Your task to perform on an android device: choose inbox layout in the gmail app Image 0: 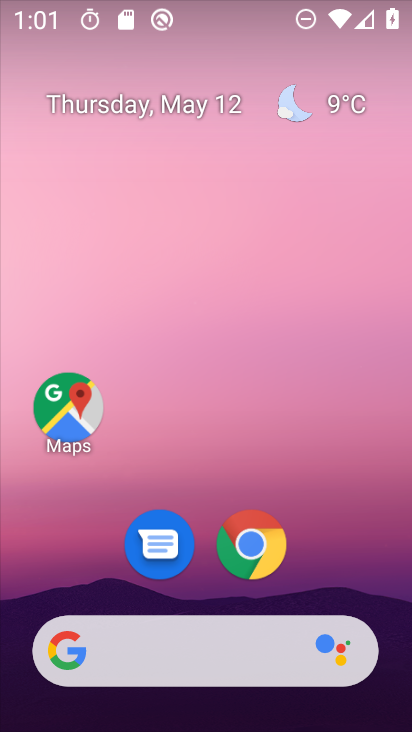
Step 0: drag from (201, 720) to (204, 201)
Your task to perform on an android device: choose inbox layout in the gmail app Image 1: 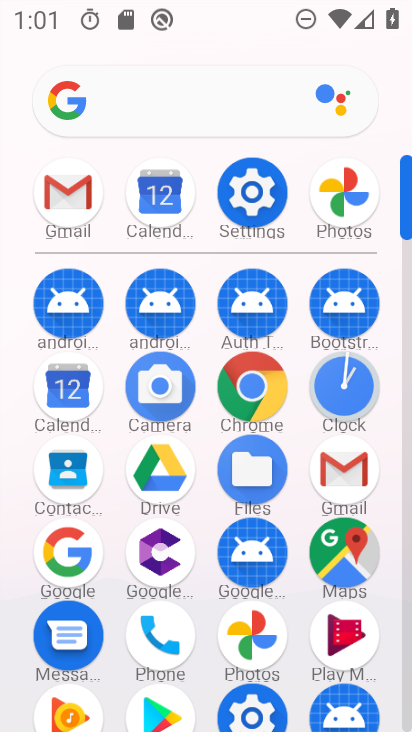
Step 1: click (346, 477)
Your task to perform on an android device: choose inbox layout in the gmail app Image 2: 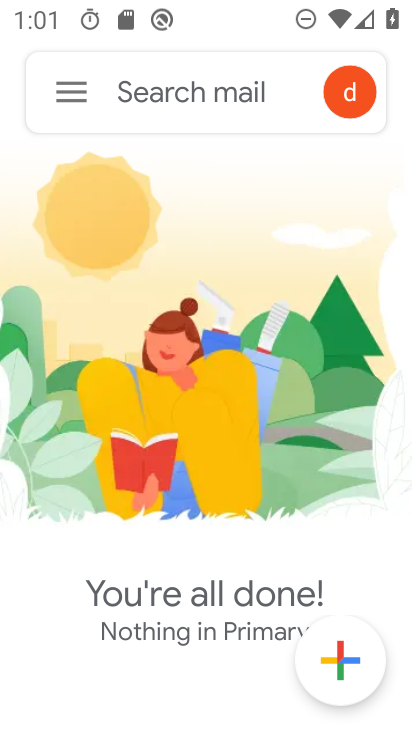
Step 2: click (78, 97)
Your task to perform on an android device: choose inbox layout in the gmail app Image 3: 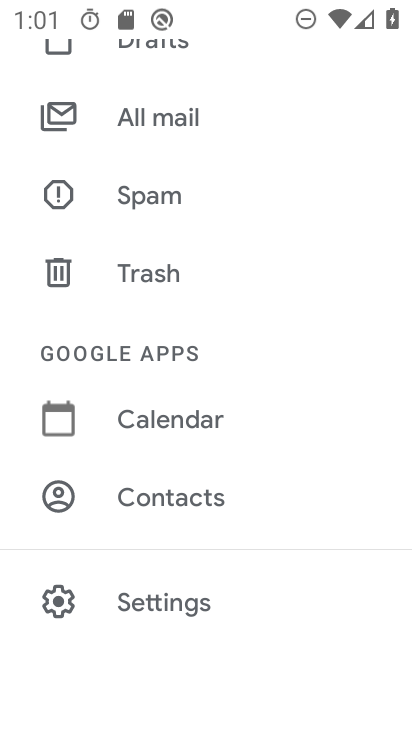
Step 3: click (174, 600)
Your task to perform on an android device: choose inbox layout in the gmail app Image 4: 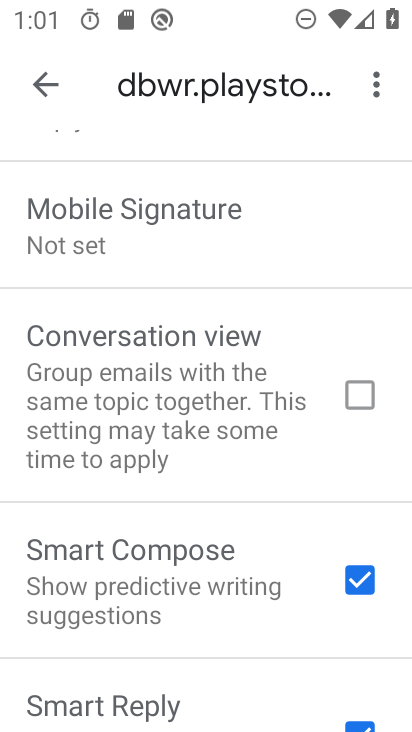
Step 4: drag from (187, 654) to (187, 217)
Your task to perform on an android device: choose inbox layout in the gmail app Image 5: 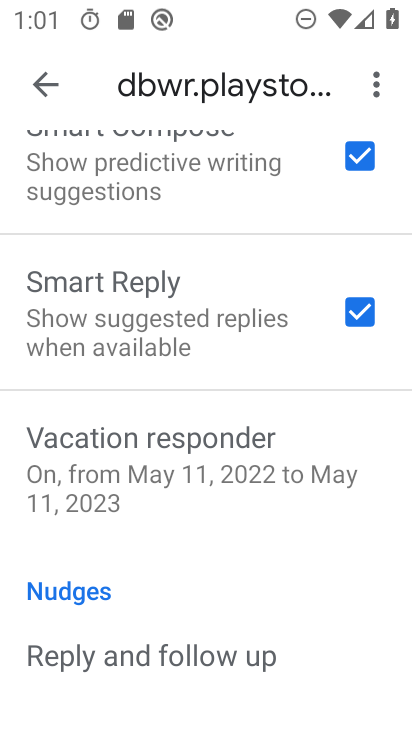
Step 5: drag from (215, 595) to (185, 145)
Your task to perform on an android device: choose inbox layout in the gmail app Image 6: 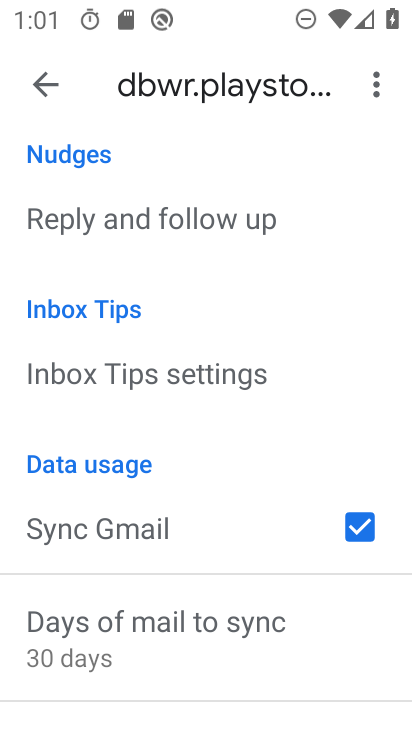
Step 6: drag from (207, 136) to (243, 592)
Your task to perform on an android device: choose inbox layout in the gmail app Image 7: 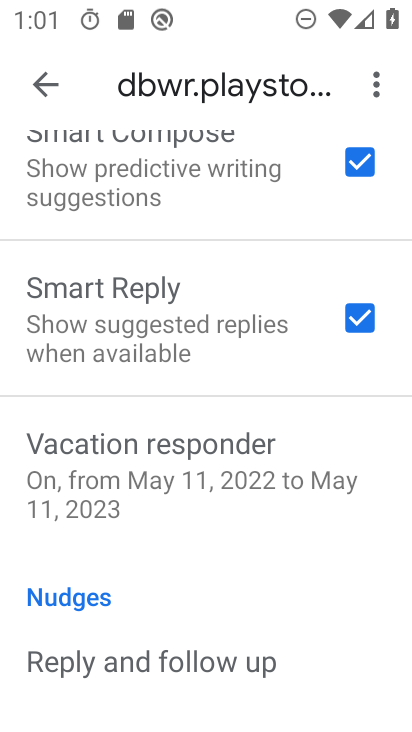
Step 7: drag from (208, 150) to (212, 617)
Your task to perform on an android device: choose inbox layout in the gmail app Image 8: 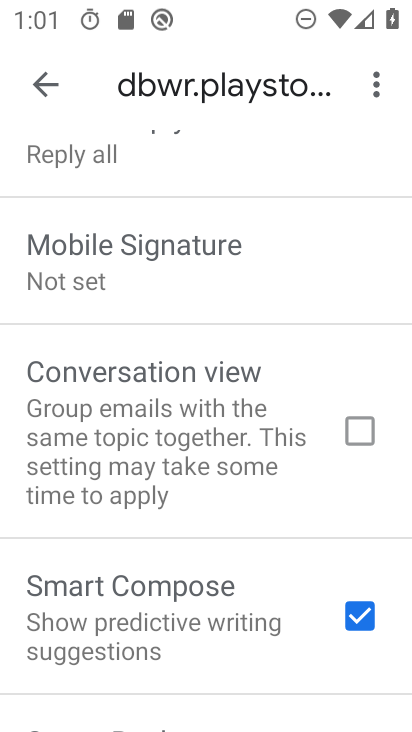
Step 8: drag from (222, 158) to (231, 592)
Your task to perform on an android device: choose inbox layout in the gmail app Image 9: 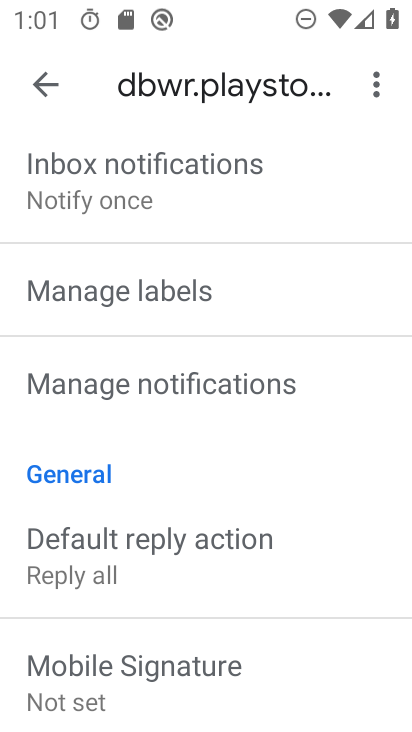
Step 9: drag from (237, 203) to (225, 604)
Your task to perform on an android device: choose inbox layout in the gmail app Image 10: 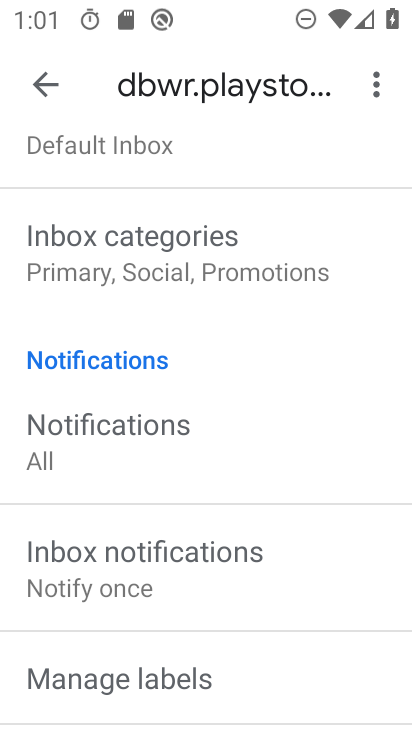
Step 10: drag from (266, 164) to (295, 603)
Your task to perform on an android device: choose inbox layout in the gmail app Image 11: 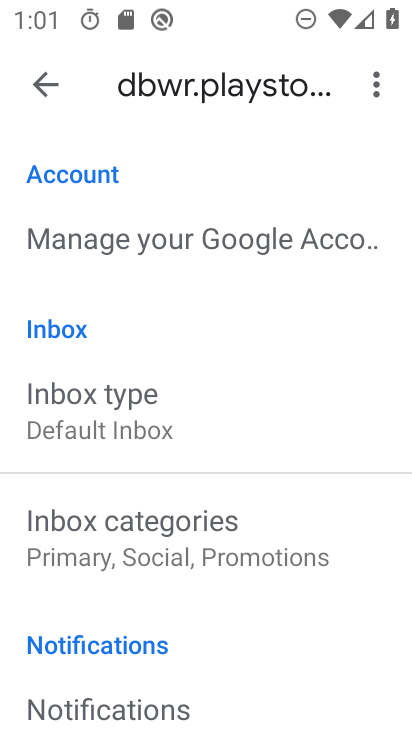
Step 11: drag from (256, 187) to (289, 486)
Your task to perform on an android device: choose inbox layout in the gmail app Image 12: 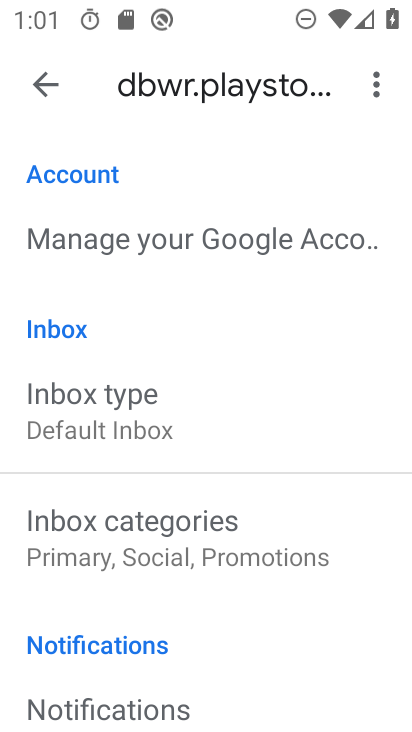
Step 12: click (92, 414)
Your task to perform on an android device: choose inbox layout in the gmail app Image 13: 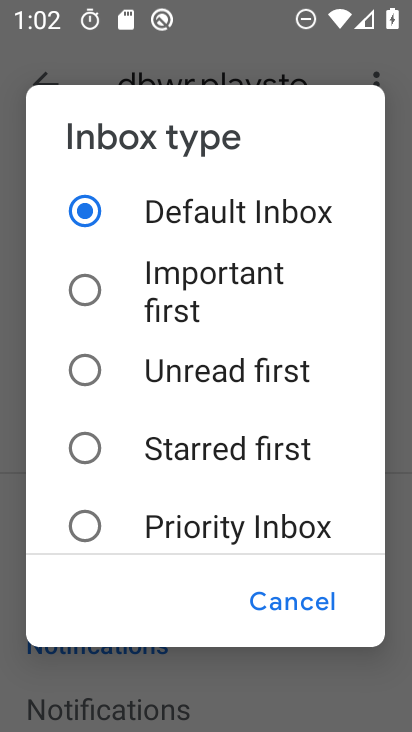
Step 13: click (85, 285)
Your task to perform on an android device: choose inbox layout in the gmail app Image 14: 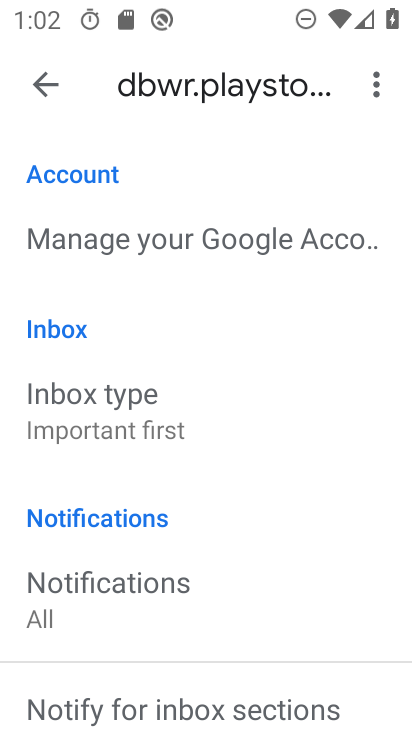
Step 14: task complete